Your task to perform on an android device: toggle airplane mode Image 0: 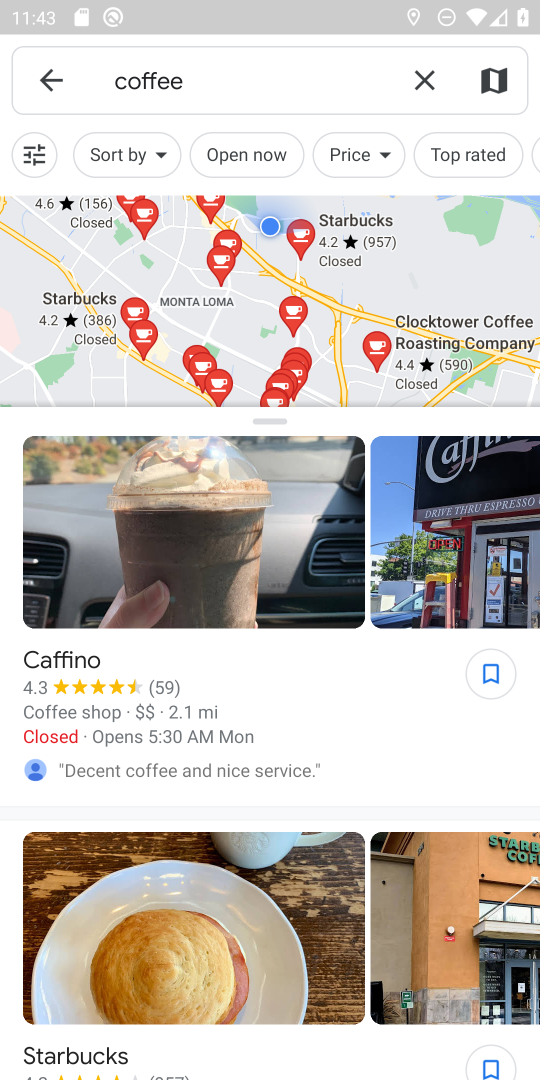
Step 0: press home button
Your task to perform on an android device: toggle airplane mode Image 1: 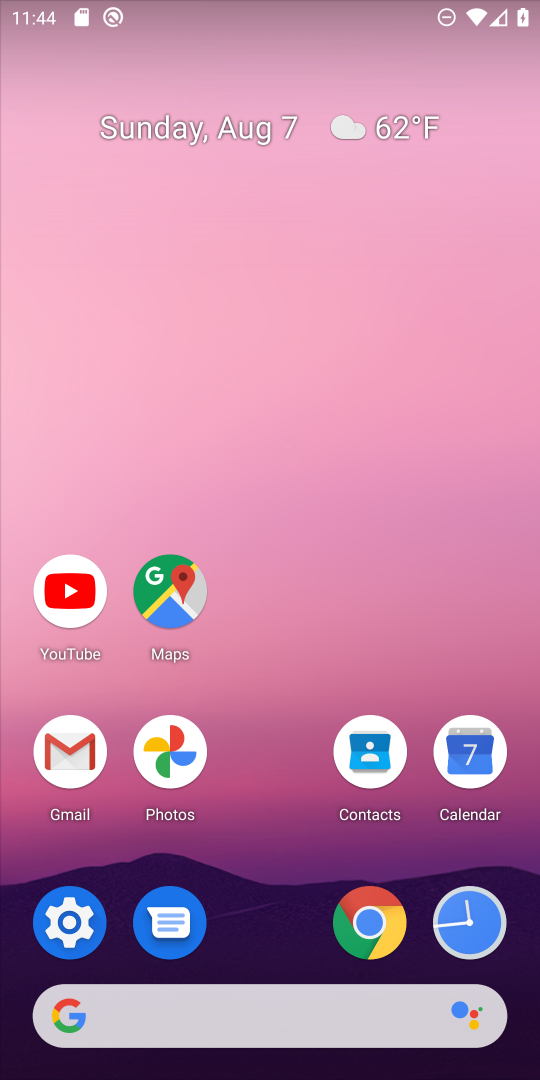
Step 1: click (70, 919)
Your task to perform on an android device: toggle airplane mode Image 2: 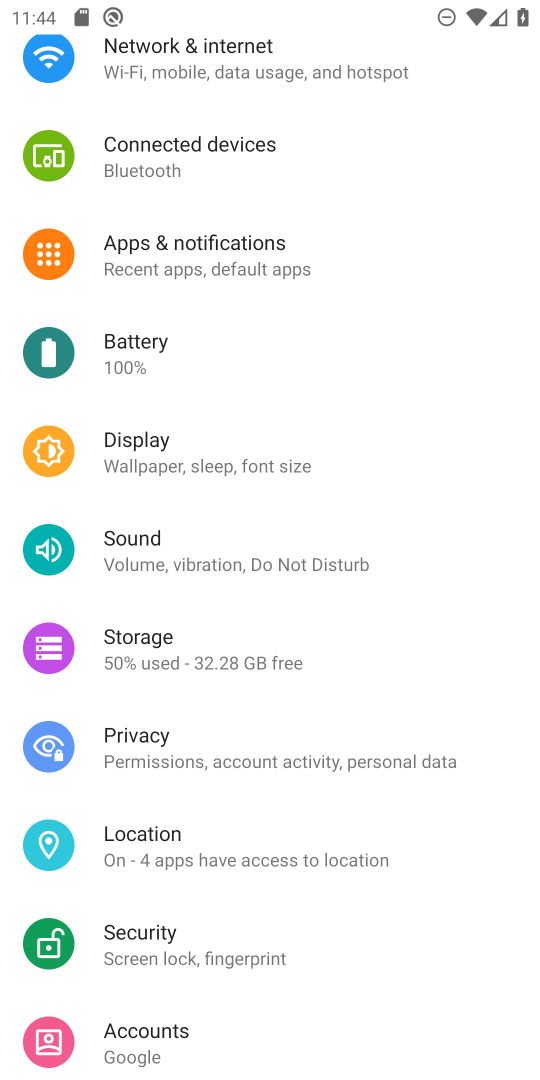
Step 2: click (234, 35)
Your task to perform on an android device: toggle airplane mode Image 3: 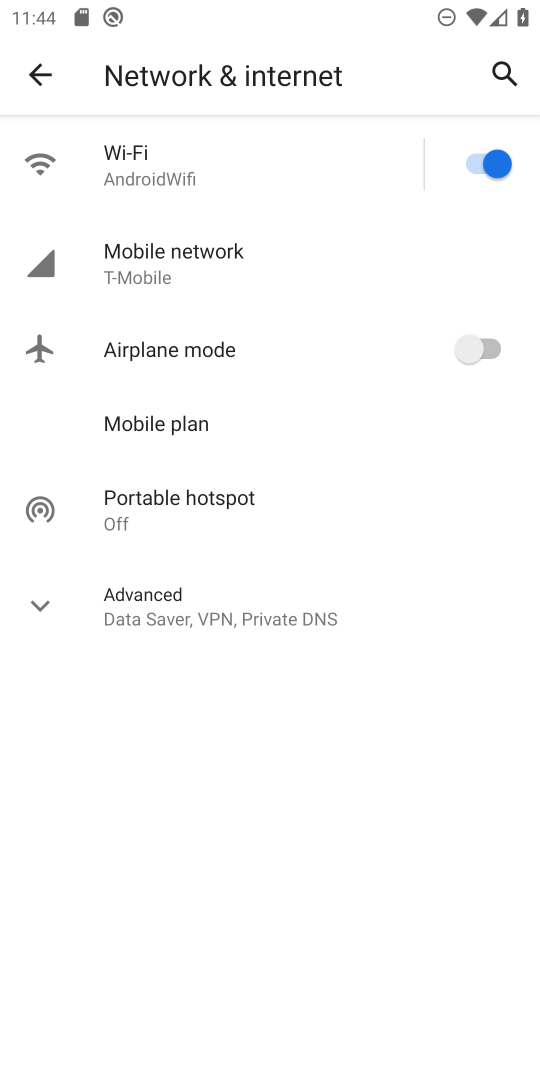
Step 3: click (471, 348)
Your task to perform on an android device: toggle airplane mode Image 4: 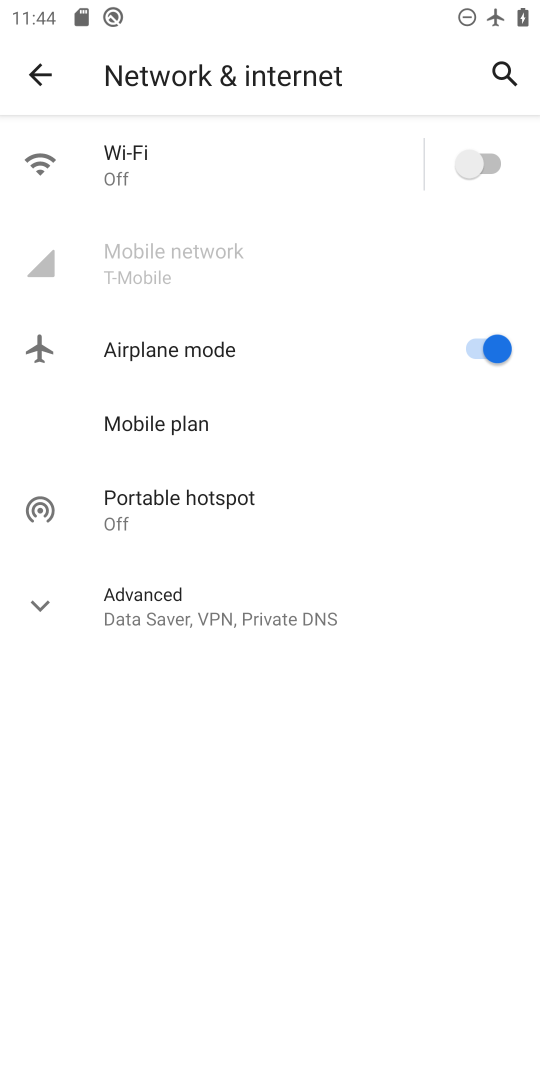
Step 4: task complete